Your task to perform on an android device: empty trash in the gmail app Image 0: 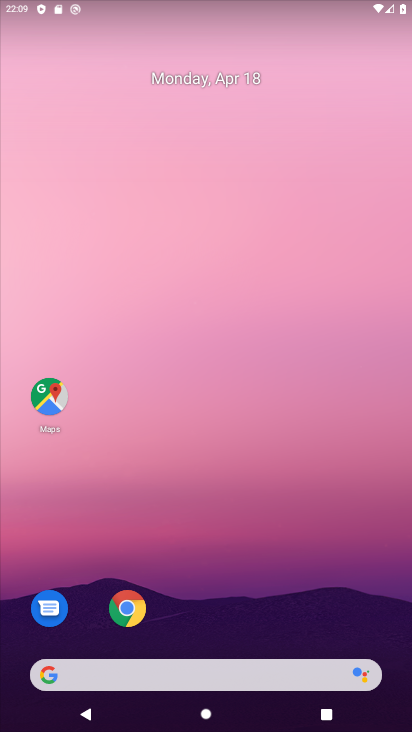
Step 0: drag from (235, 620) to (211, 110)
Your task to perform on an android device: empty trash in the gmail app Image 1: 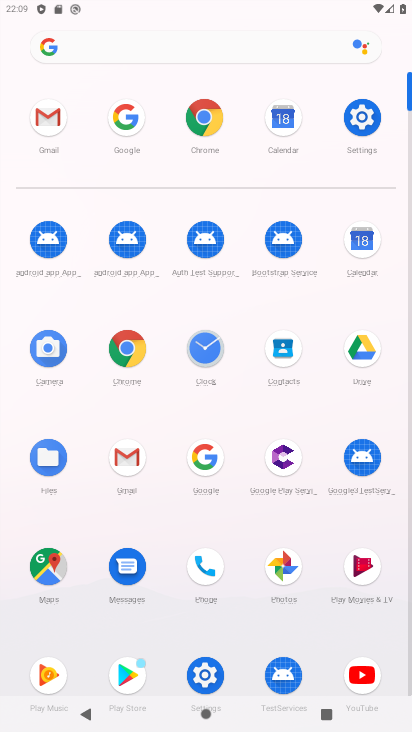
Step 1: click (40, 122)
Your task to perform on an android device: empty trash in the gmail app Image 2: 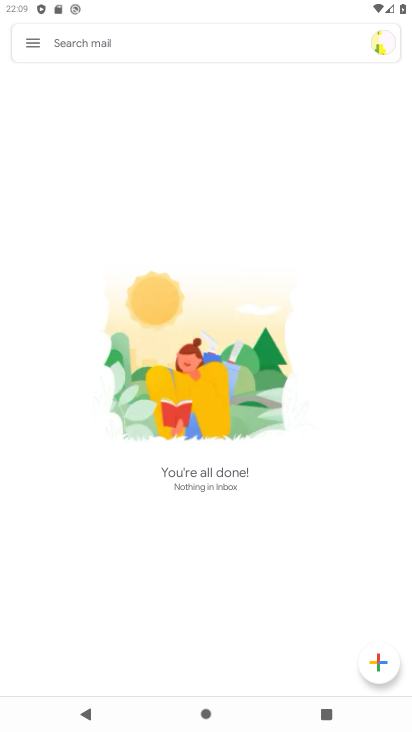
Step 2: click (32, 43)
Your task to perform on an android device: empty trash in the gmail app Image 3: 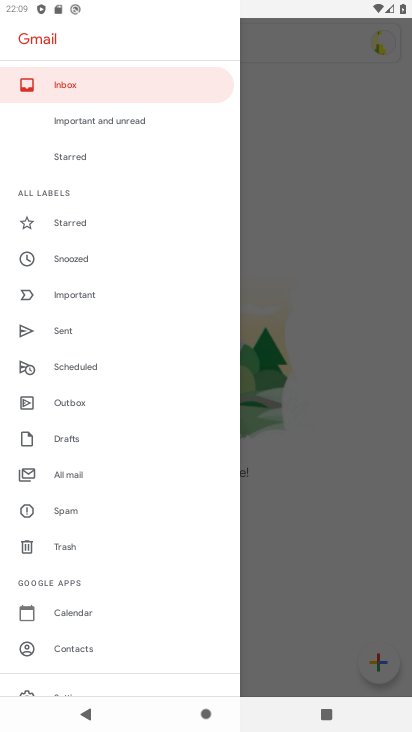
Step 3: click (79, 546)
Your task to perform on an android device: empty trash in the gmail app Image 4: 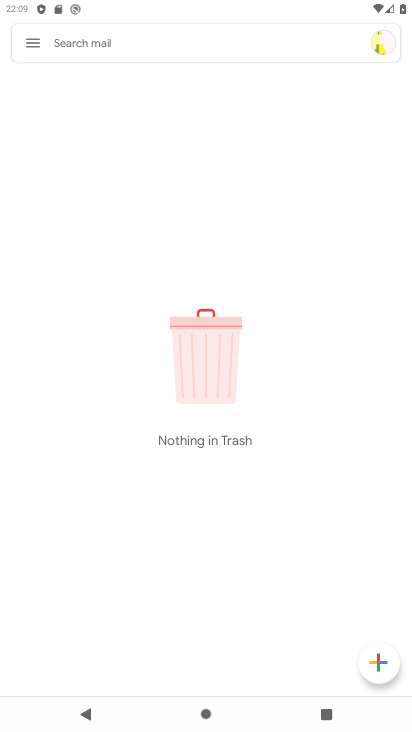
Step 4: task complete